Your task to perform on an android device: delete location history Image 0: 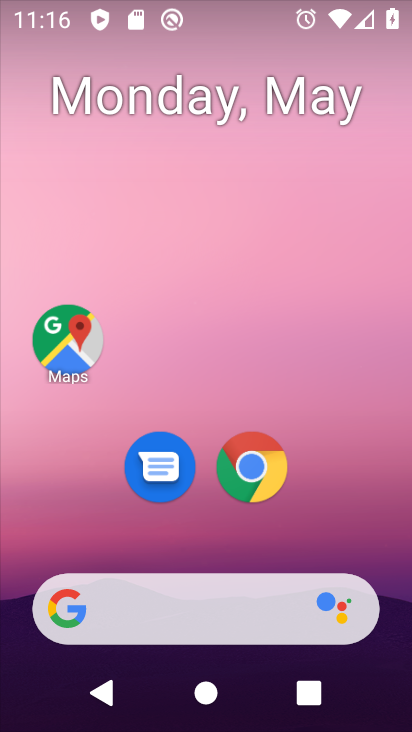
Step 0: drag from (333, 517) to (339, 143)
Your task to perform on an android device: delete location history Image 1: 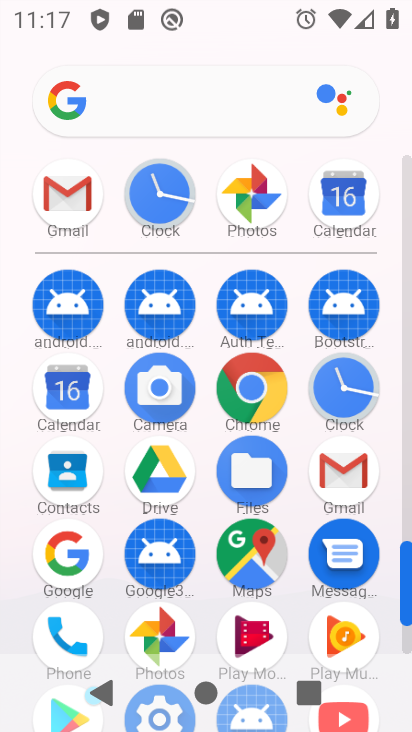
Step 1: drag from (406, 579) to (408, 637)
Your task to perform on an android device: delete location history Image 2: 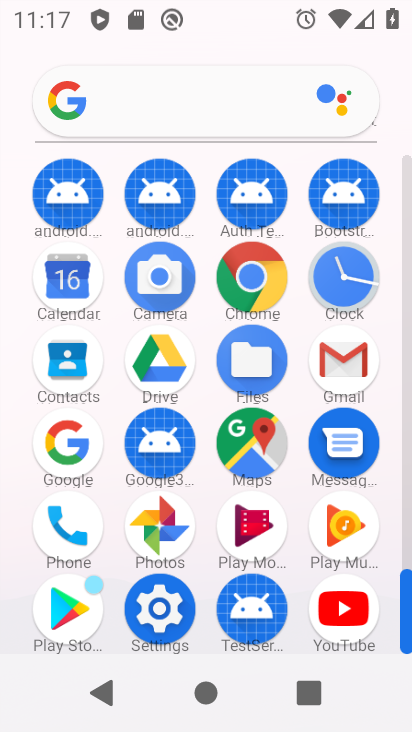
Step 2: click (162, 624)
Your task to perform on an android device: delete location history Image 3: 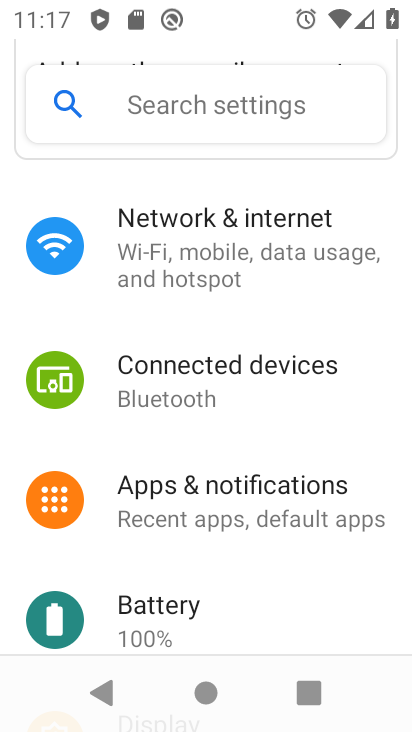
Step 3: drag from (218, 557) to (197, 237)
Your task to perform on an android device: delete location history Image 4: 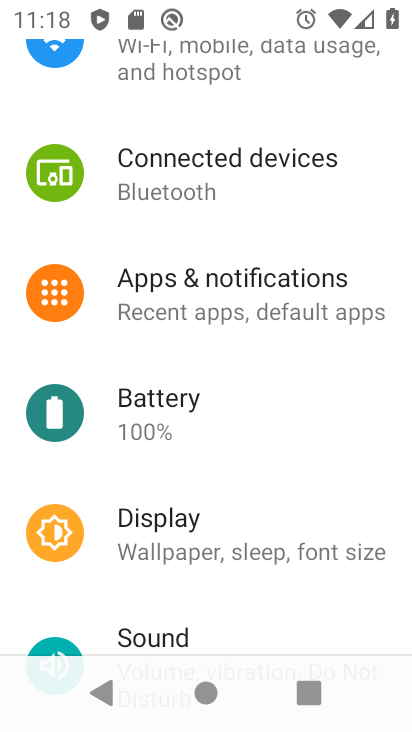
Step 4: drag from (232, 416) to (247, 268)
Your task to perform on an android device: delete location history Image 5: 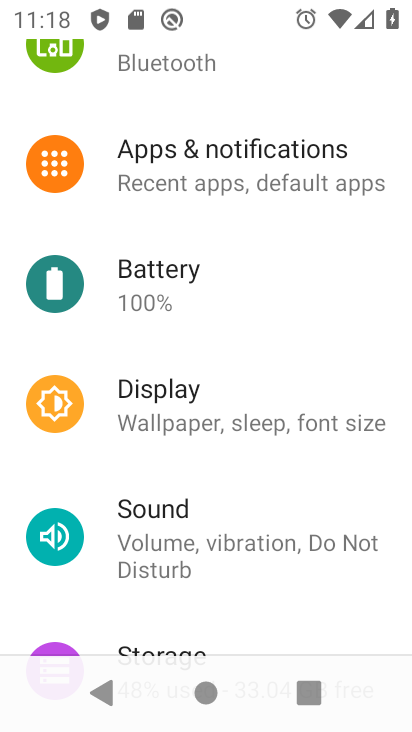
Step 5: drag from (166, 583) to (192, 391)
Your task to perform on an android device: delete location history Image 6: 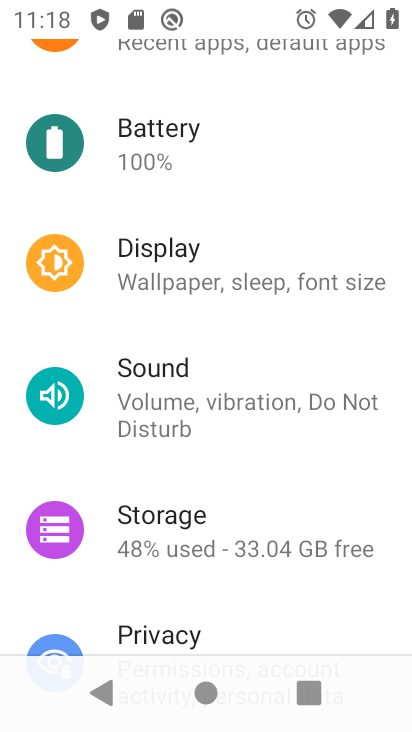
Step 6: drag from (199, 589) to (225, 373)
Your task to perform on an android device: delete location history Image 7: 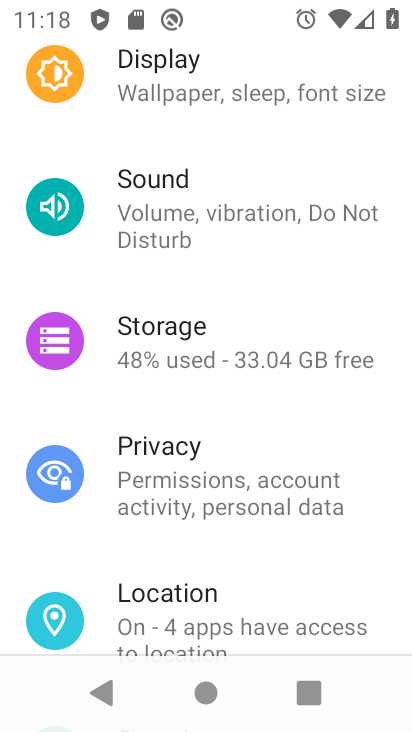
Step 7: click (208, 573)
Your task to perform on an android device: delete location history Image 8: 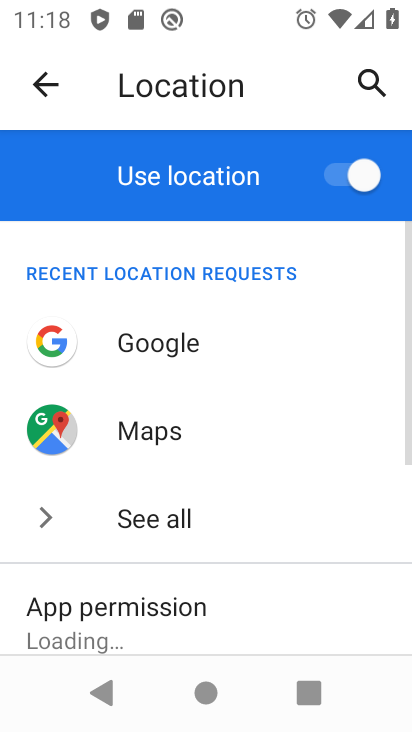
Step 8: drag from (283, 564) to (285, 267)
Your task to perform on an android device: delete location history Image 9: 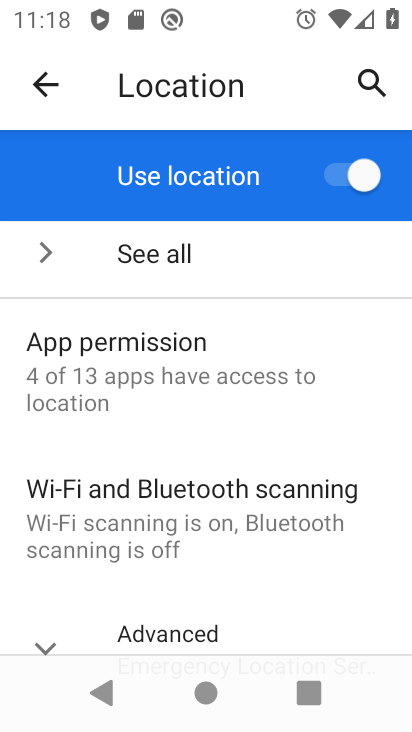
Step 9: click (231, 619)
Your task to perform on an android device: delete location history Image 10: 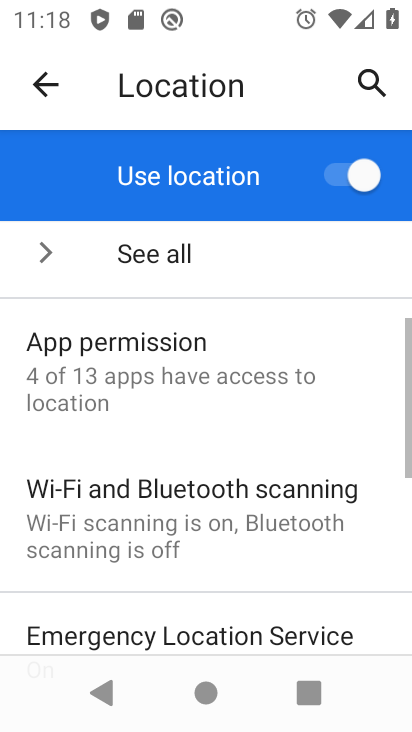
Step 10: drag from (231, 554) to (235, 299)
Your task to perform on an android device: delete location history Image 11: 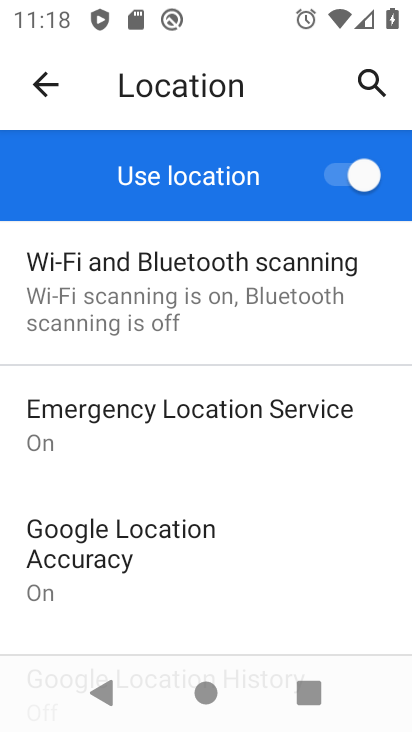
Step 11: drag from (233, 527) to (238, 457)
Your task to perform on an android device: delete location history Image 12: 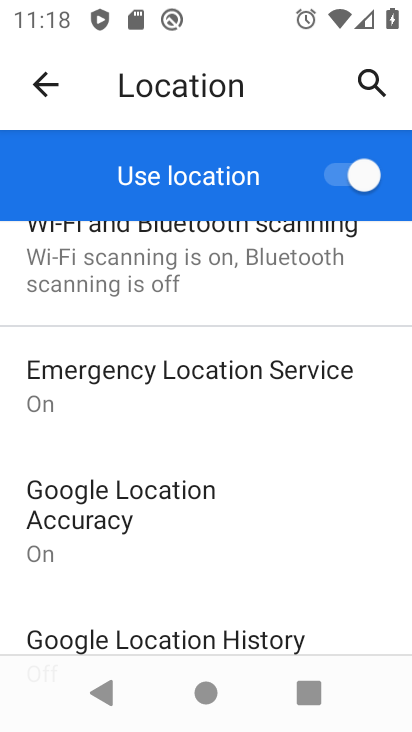
Step 12: click (172, 615)
Your task to perform on an android device: delete location history Image 13: 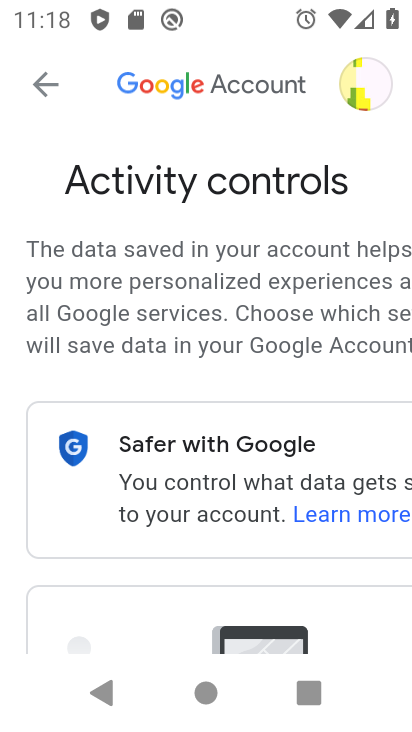
Step 13: drag from (236, 558) to (240, 329)
Your task to perform on an android device: delete location history Image 14: 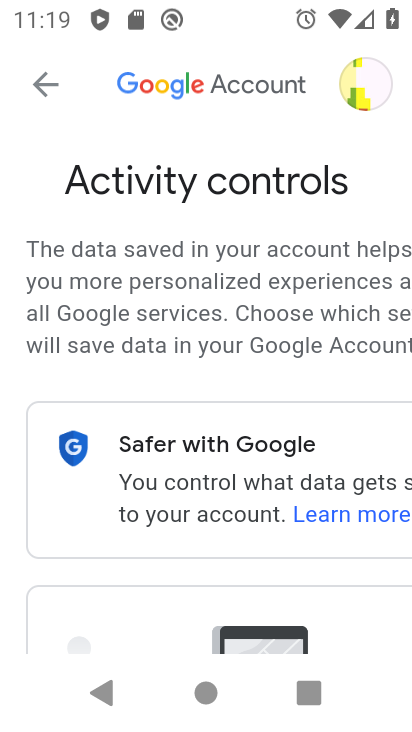
Step 14: drag from (136, 559) to (92, 62)
Your task to perform on an android device: delete location history Image 15: 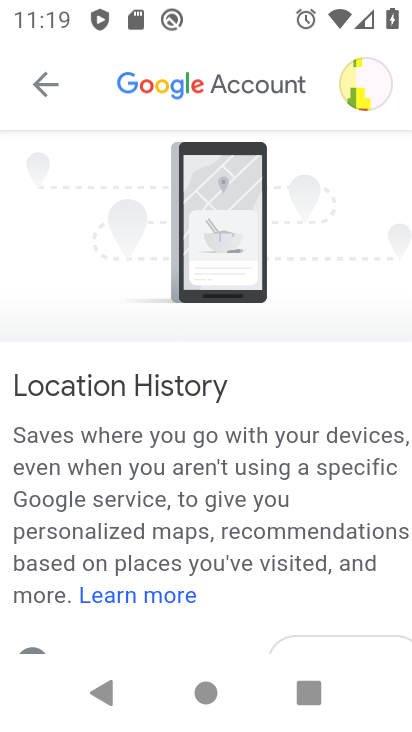
Step 15: drag from (161, 495) to (150, 263)
Your task to perform on an android device: delete location history Image 16: 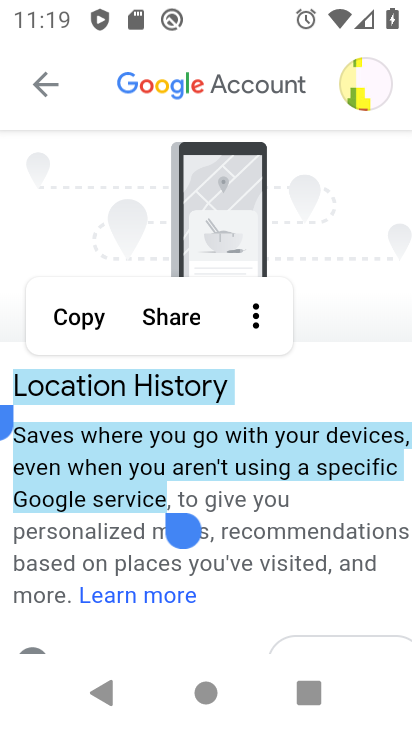
Step 16: click (269, 562)
Your task to perform on an android device: delete location history Image 17: 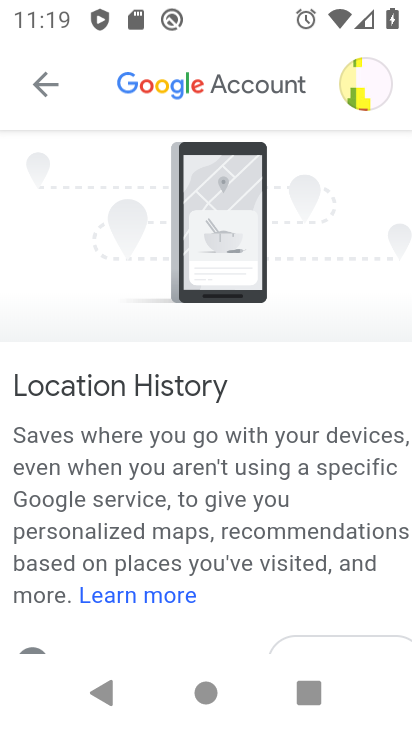
Step 17: drag from (269, 562) to (255, 173)
Your task to perform on an android device: delete location history Image 18: 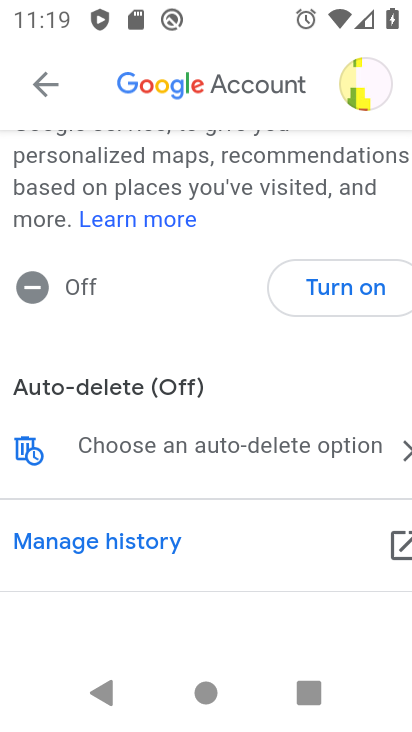
Step 18: click (252, 432)
Your task to perform on an android device: delete location history Image 19: 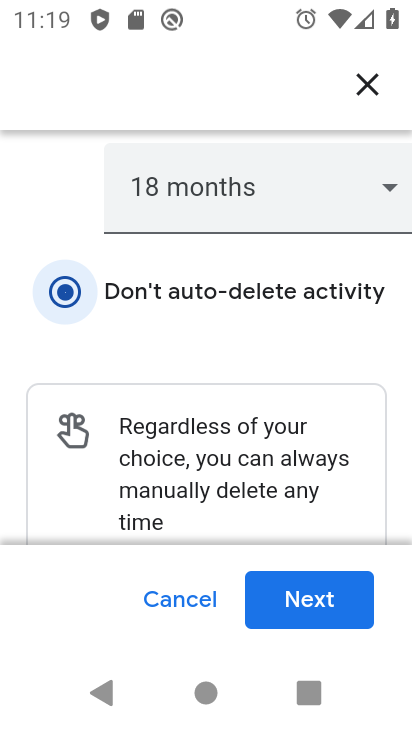
Step 19: click (311, 584)
Your task to perform on an android device: delete location history Image 20: 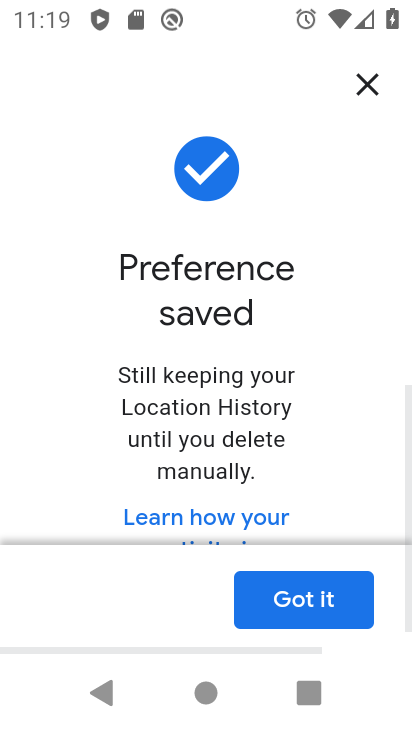
Step 20: click (311, 591)
Your task to perform on an android device: delete location history Image 21: 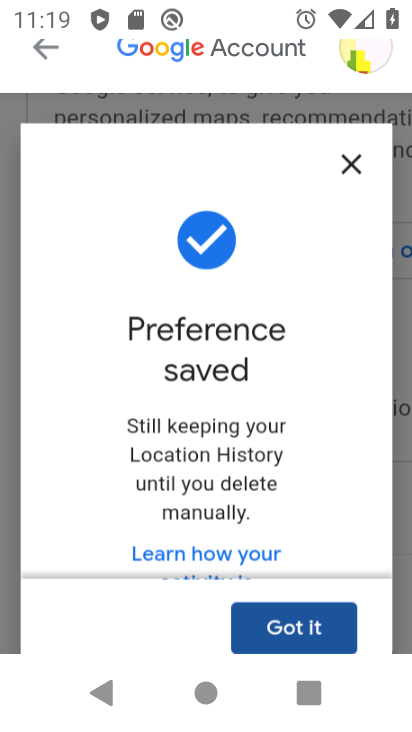
Step 21: click (311, 591)
Your task to perform on an android device: delete location history Image 22: 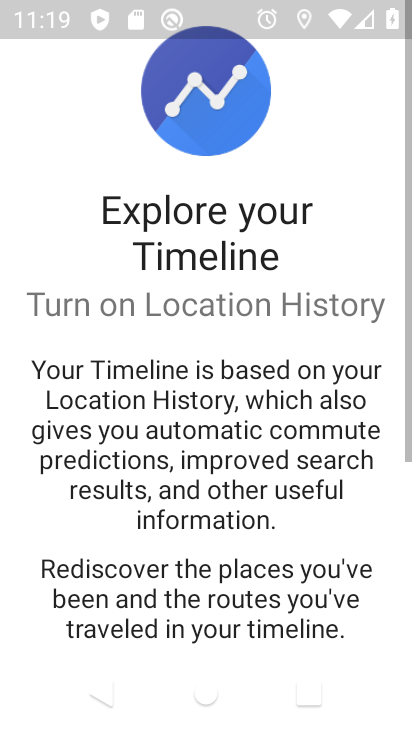
Step 22: task complete